Your task to perform on an android device: turn off location history Image 0: 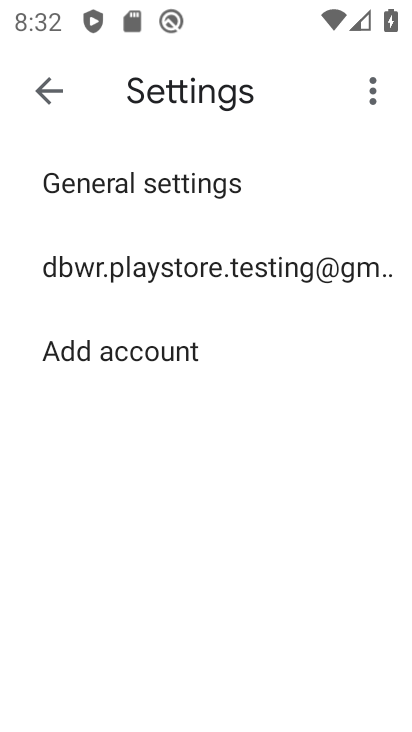
Step 0: press home button
Your task to perform on an android device: turn off location history Image 1: 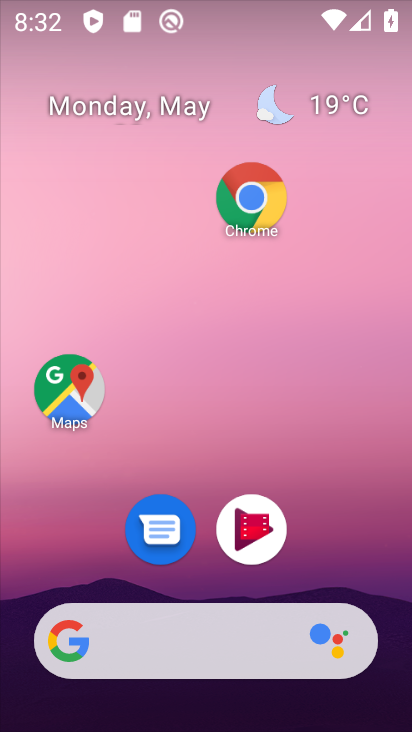
Step 1: drag from (322, 577) to (225, 3)
Your task to perform on an android device: turn off location history Image 2: 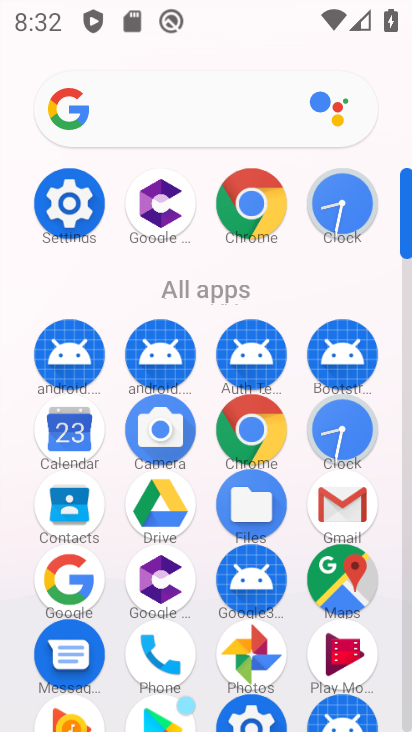
Step 2: click (68, 213)
Your task to perform on an android device: turn off location history Image 3: 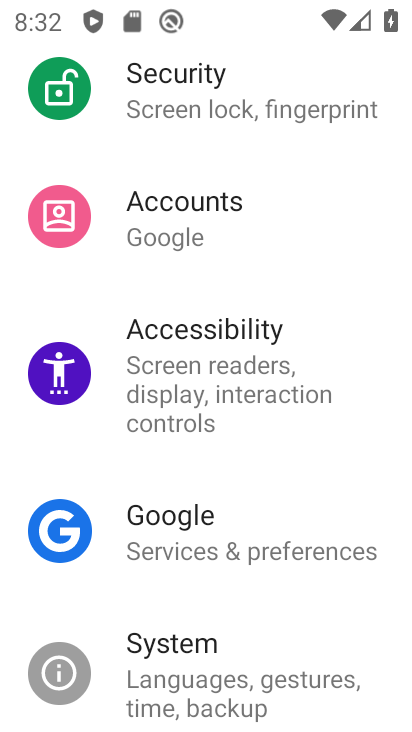
Step 3: drag from (185, 654) to (220, 331)
Your task to perform on an android device: turn off location history Image 4: 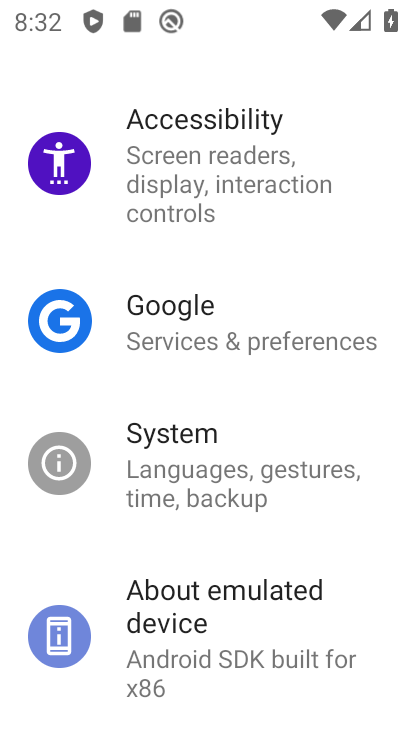
Step 4: drag from (214, 254) to (213, 730)
Your task to perform on an android device: turn off location history Image 5: 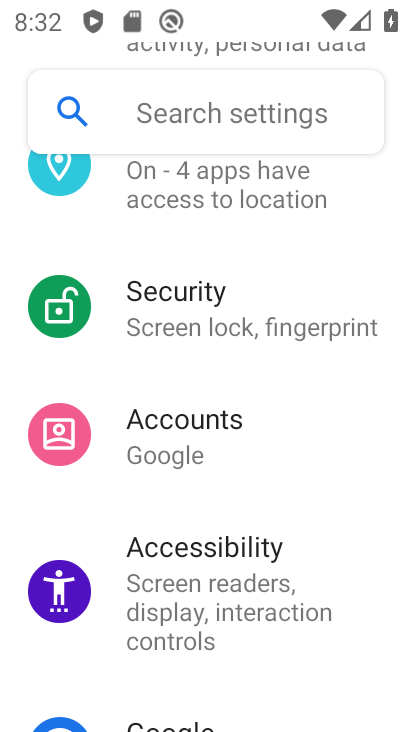
Step 5: drag from (234, 323) to (218, 724)
Your task to perform on an android device: turn off location history Image 6: 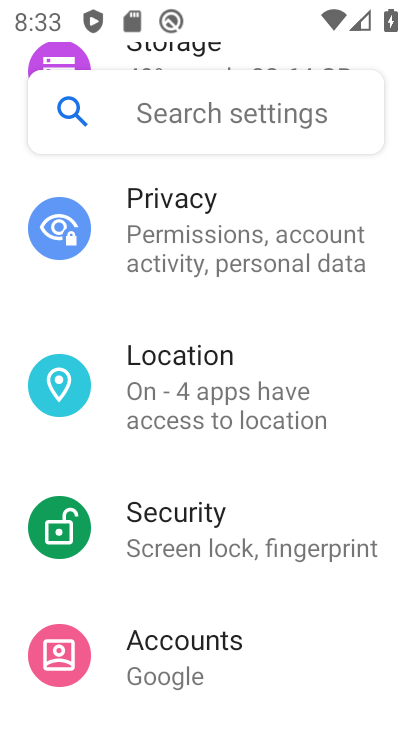
Step 6: click (196, 731)
Your task to perform on an android device: turn off location history Image 7: 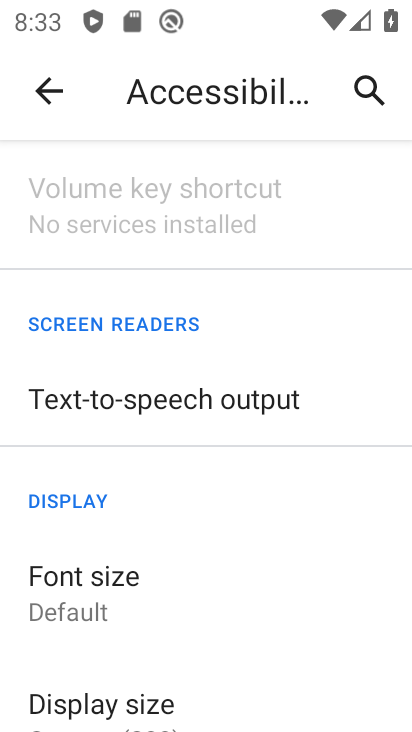
Step 7: click (161, 414)
Your task to perform on an android device: turn off location history Image 8: 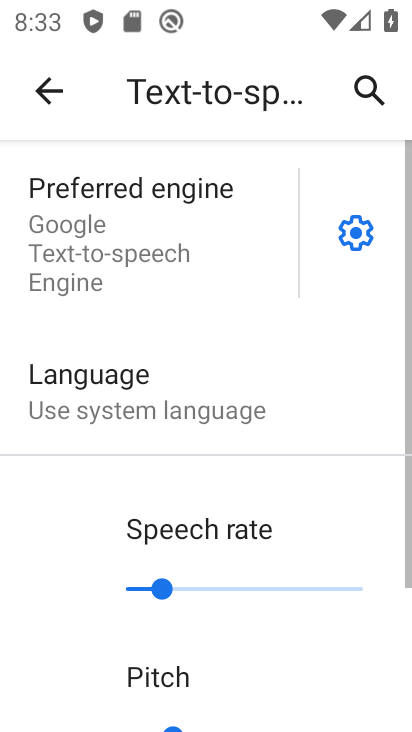
Step 8: click (36, 87)
Your task to perform on an android device: turn off location history Image 9: 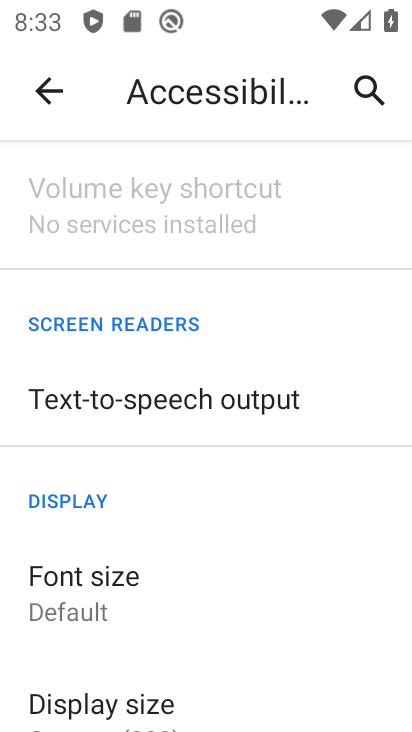
Step 9: drag from (243, 661) to (217, 137)
Your task to perform on an android device: turn off location history Image 10: 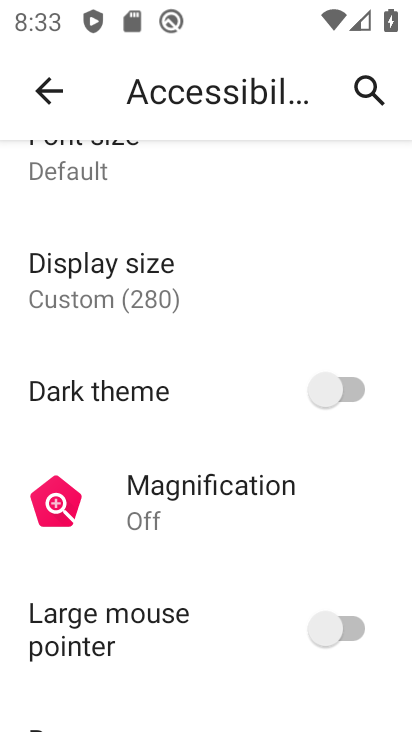
Step 10: click (39, 97)
Your task to perform on an android device: turn off location history Image 11: 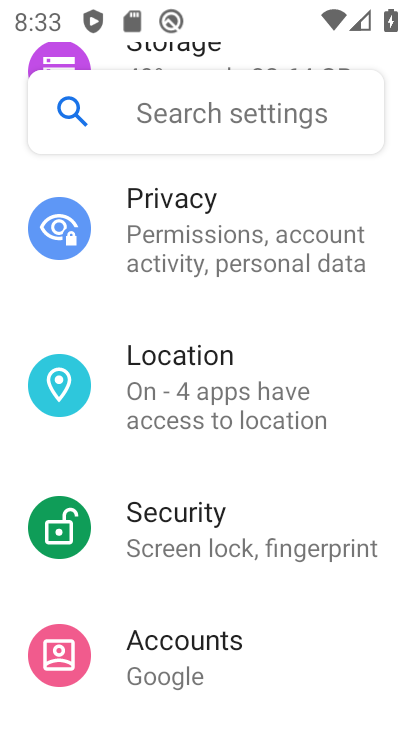
Step 11: drag from (162, 252) to (157, 506)
Your task to perform on an android device: turn off location history Image 12: 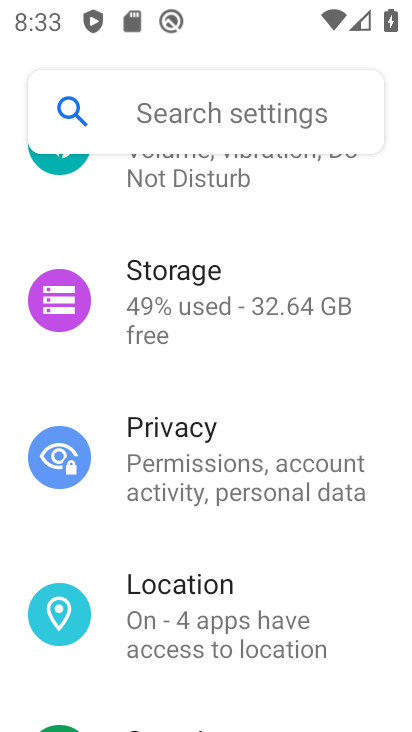
Step 12: click (177, 614)
Your task to perform on an android device: turn off location history Image 13: 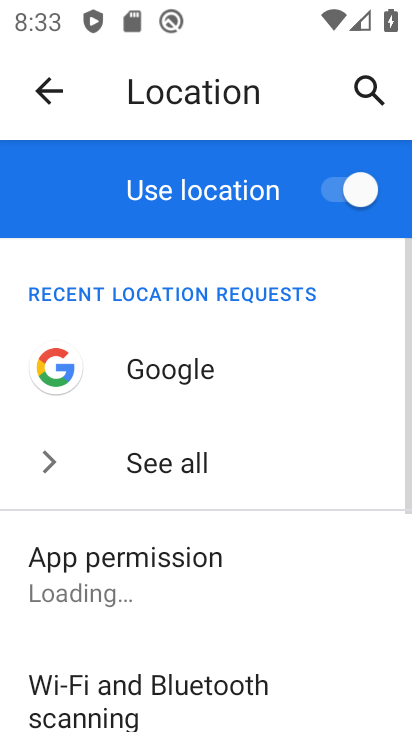
Step 13: drag from (161, 644) to (181, 343)
Your task to perform on an android device: turn off location history Image 14: 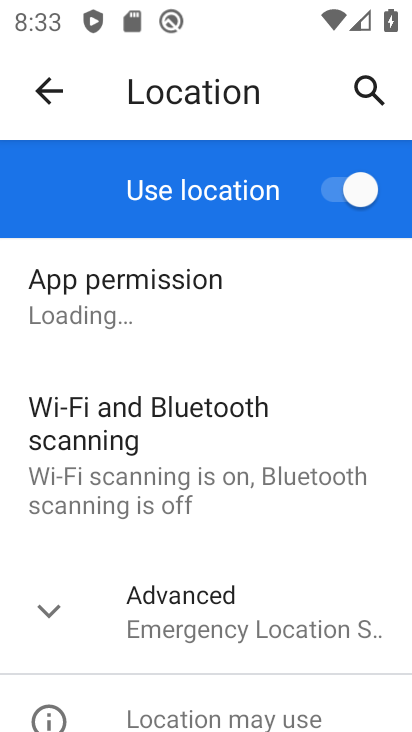
Step 14: drag from (195, 726) to (194, 333)
Your task to perform on an android device: turn off location history Image 15: 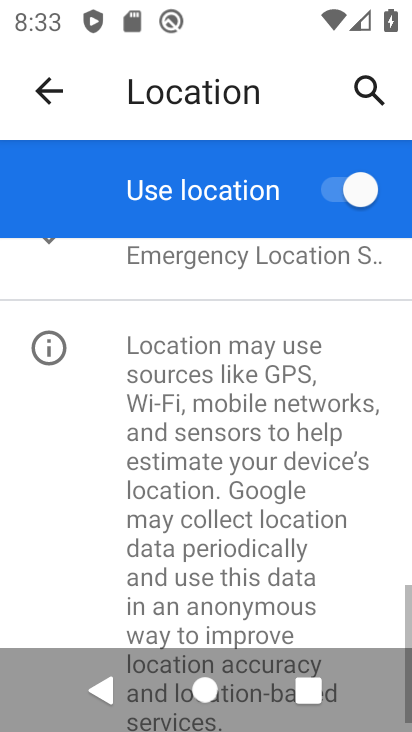
Step 15: drag from (157, 395) to (137, 573)
Your task to perform on an android device: turn off location history Image 16: 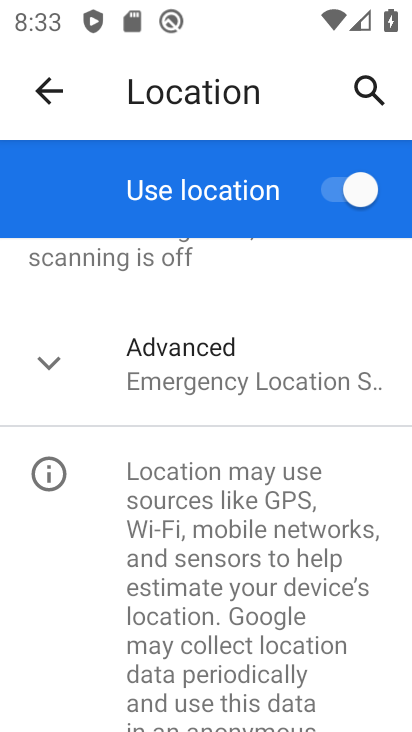
Step 16: click (114, 377)
Your task to perform on an android device: turn off location history Image 17: 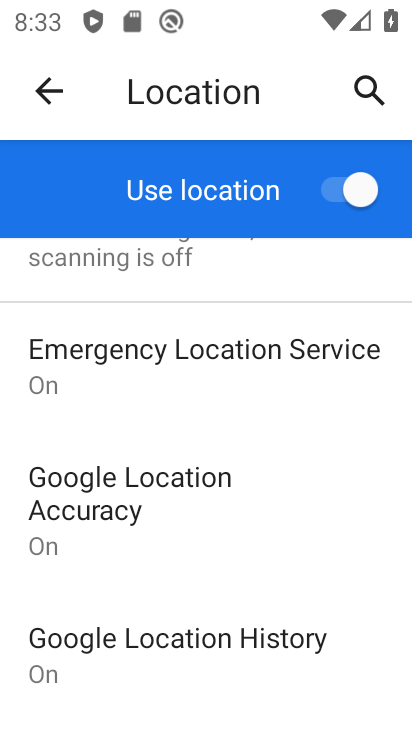
Step 17: drag from (160, 673) to (211, 456)
Your task to perform on an android device: turn off location history Image 18: 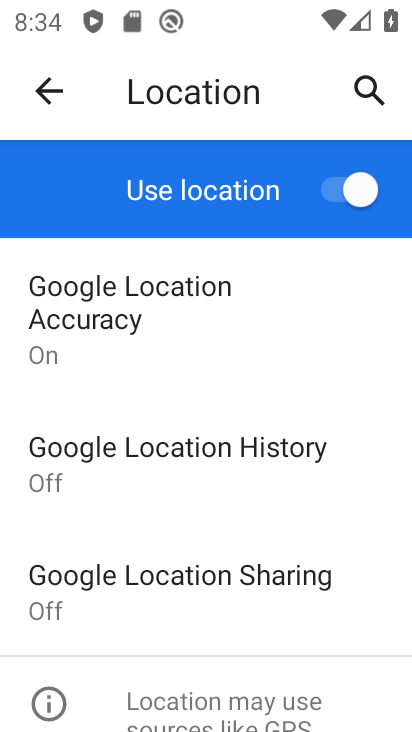
Step 18: click (169, 476)
Your task to perform on an android device: turn off location history Image 19: 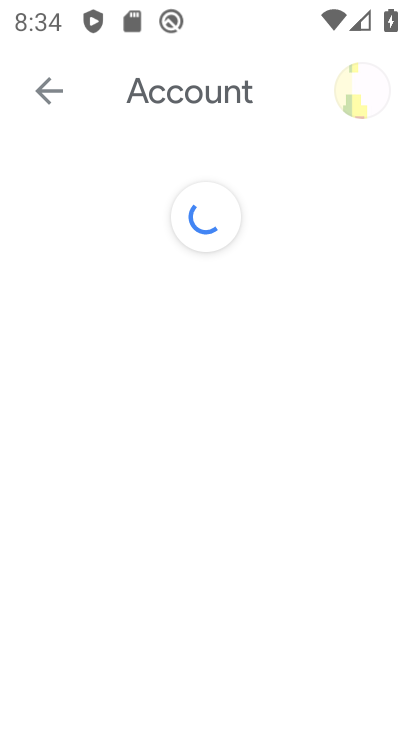
Step 19: task complete